Your task to perform on an android device: check google app version Image 0: 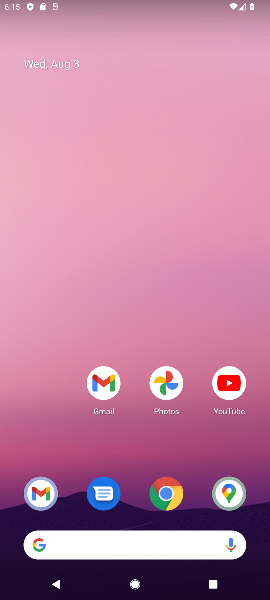
Step 0: drag from (127, 512) to (124, 159)
Your task to perform on an android device: check google app version Image 1: 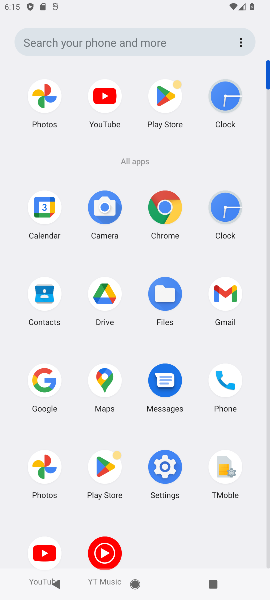
Step 1: click (54, 380)
Your task to perform on an android device: check google app version Image 2: 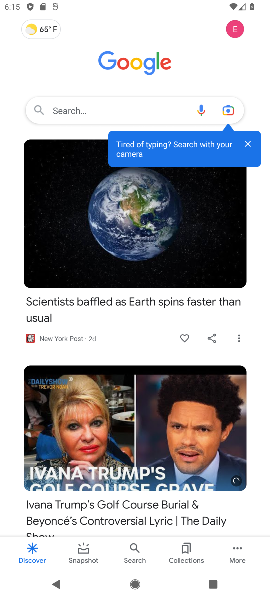
Step 2: click (235, 546)
Your task to perform on an android device: check google app version Image 3: 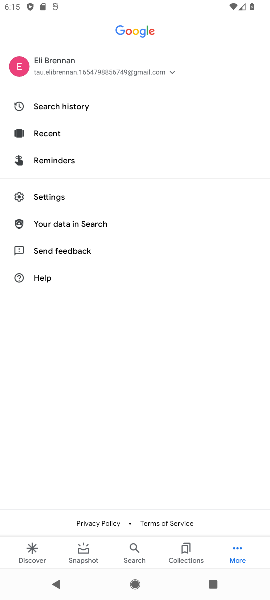
Step 3: click (48, 196)
Your task to perform on an android device: check google app version Image 4: 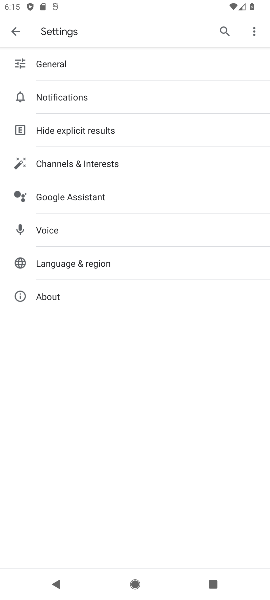
Step 4: click (42, 291)
Your task to perform on an android device: check google app version Image 5: 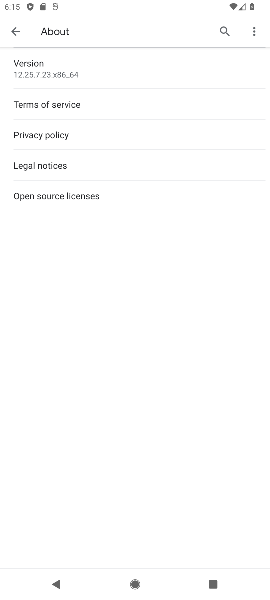
Step 5: task complete